Your task to perform on an android device: turn off notifications settings in the gmail app Image 0: 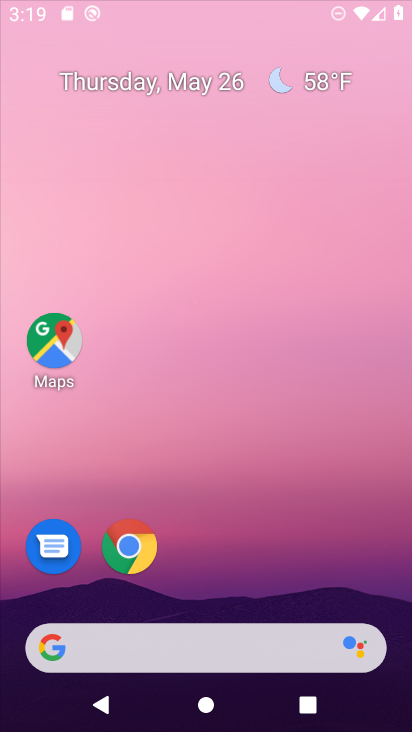
Step 0: press home button
Your task to perform on an android device: turn off notifications settings in the gmail app Image 1: 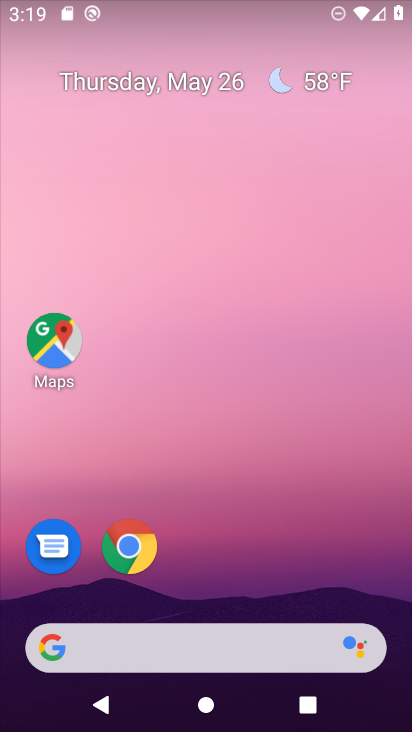
Step 1: drag from (217, 607) to (269, 16)
Your task to perform on an android device: turn off notifications settings in the gmail app Image 2: 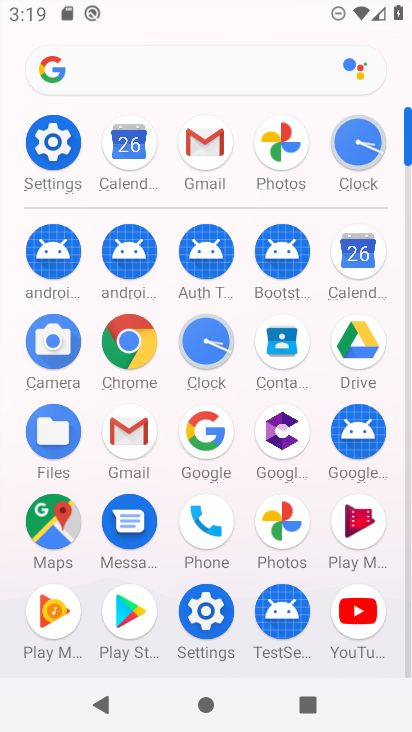
Step 2: click (209, 140)
Your task to perform on an android device: turn off notifications settings in the gmail app Image 3: 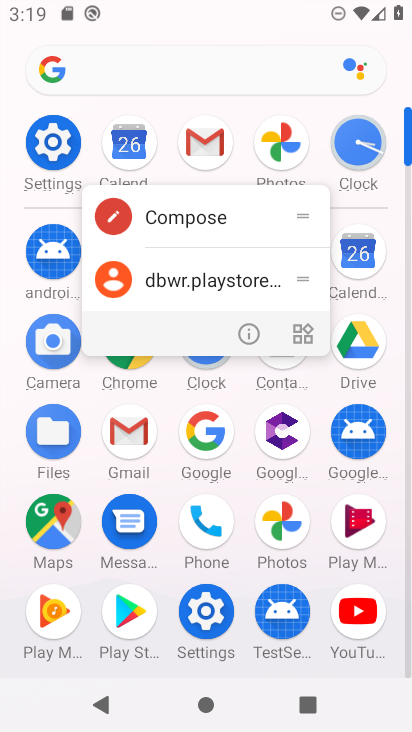
Step 3: click (201, 134)
Your task to perform on an android device: turn off notifications settings in the gmail app Image 4: 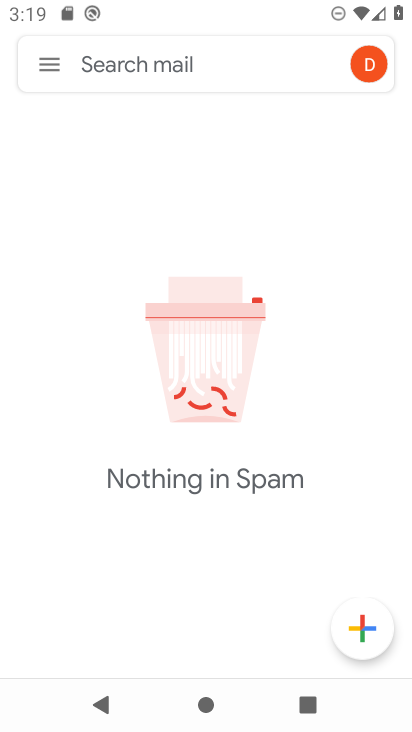
Step 4: click (49, 55)
Your task to perform on an android device: turn off notifications settings in the gmail app Image 5: 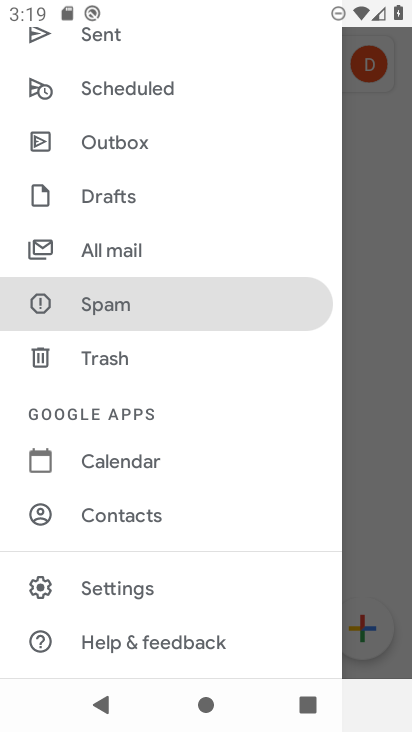
Step 5: click (166, 586)
Your task to perform on an android device: turn off notifications settings in the gmail app Image 6: 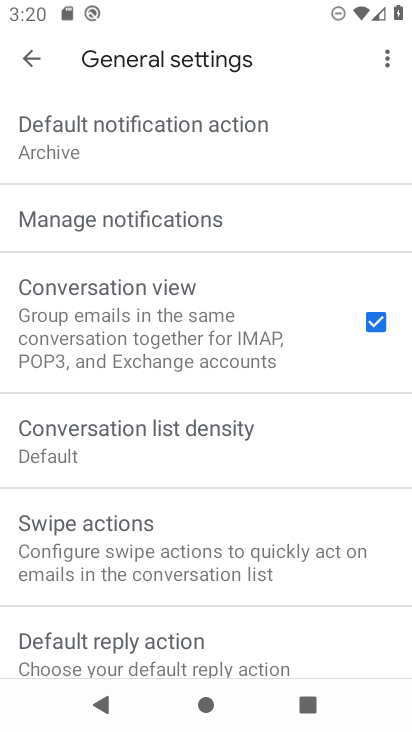
Step 6: click (240, 221)
Your task to perform on an android device: turn off notifications settings in the gmail app Image 7: 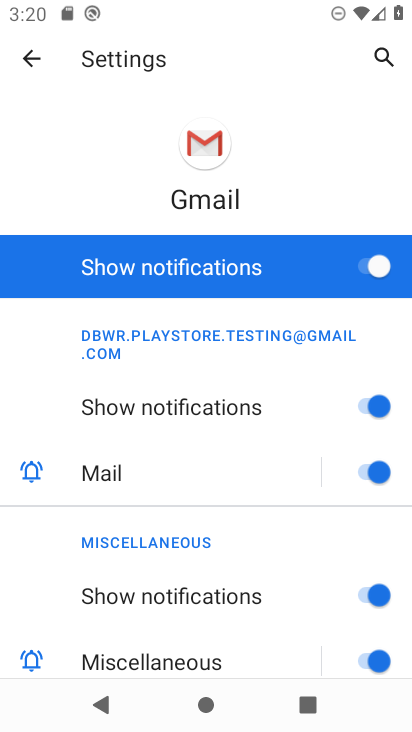
Step 7: click (370, 262)
Your task to perform on an android device: turn off notifications settings in the gmail app Image 8: 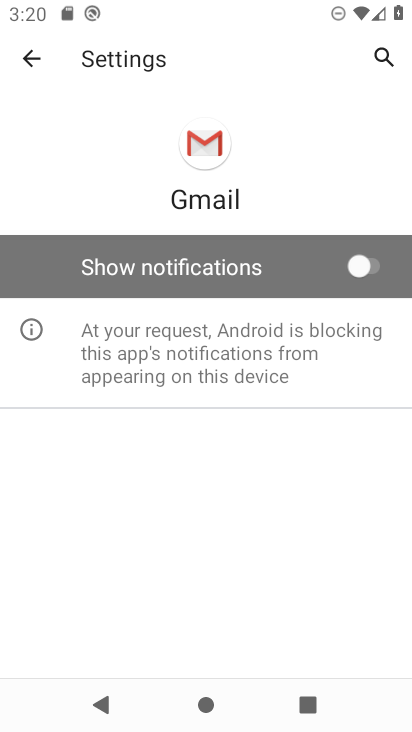
Step 8: task complete